Your task to perform on an android device: toggle improve location accuracy Image 0: 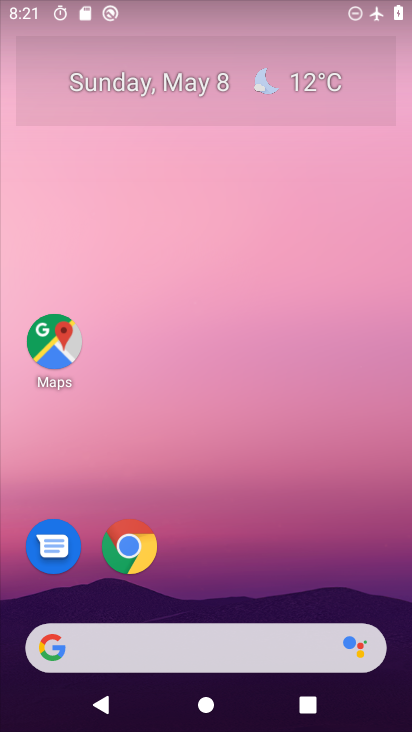
Step 0: drag from (261, 573) to (202, 30)
Your task to perform on an android device: toggle improve location accuracy Image 1: 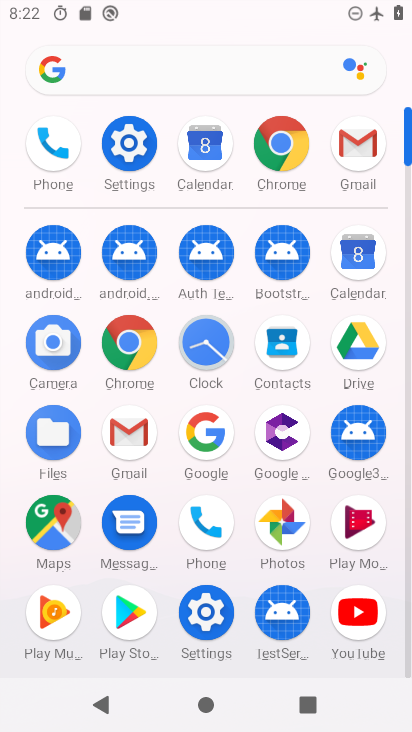
Step 1: press home button
Your task to perform on an android device: toggle improve location accuracy Image 2: 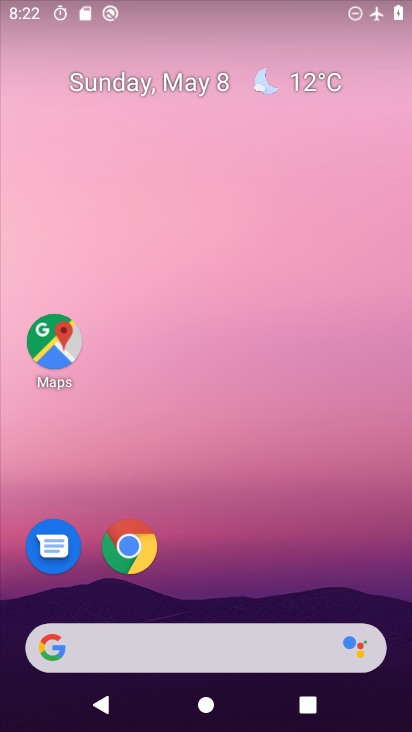
Step 2: drag from (284, 531) to (293, 49)
Your task to perform on an android device: toggle improve location accuracy Image 3: 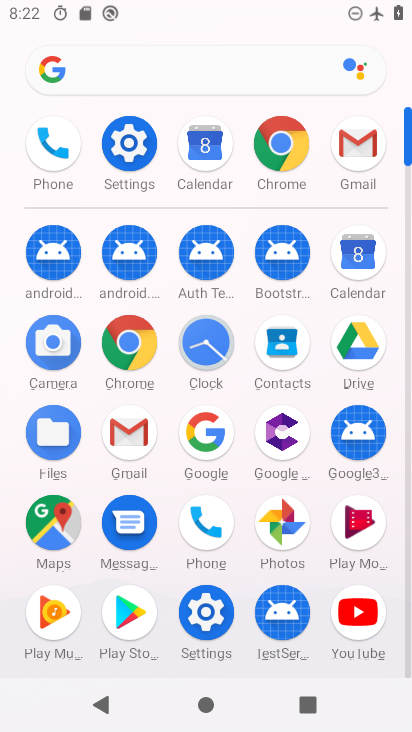
Step 3: click (143, 129)
Your task to perform on an android device: toggle improve location accuracy Image 4: 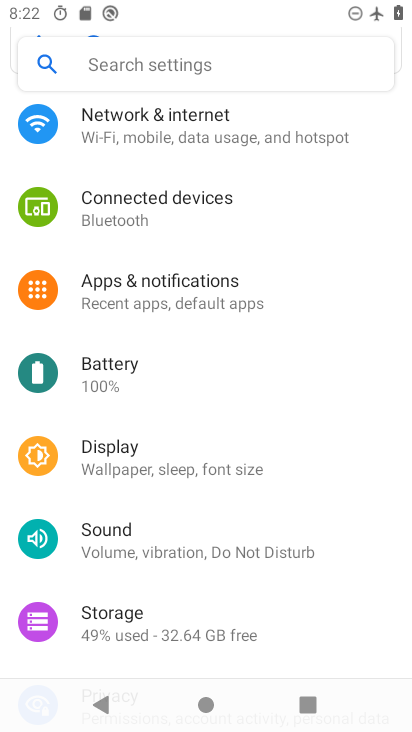
Step 4: drag from (161, 530) to (183, 183)
Your task to perform on an android device: toggle improve location accuracy Image 5: 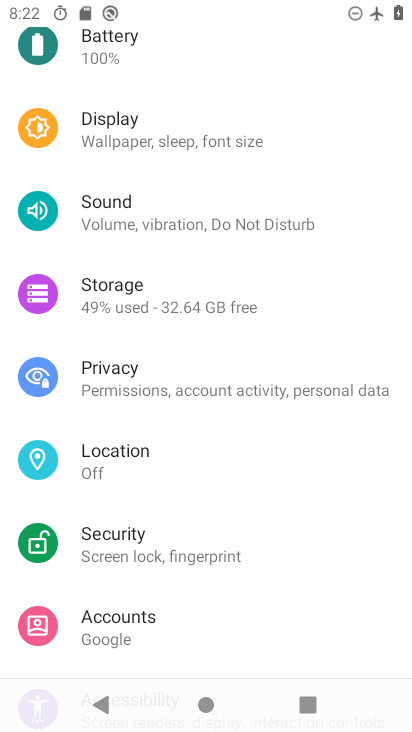
Step 5: click (156, 451)
Your task to perform on an android device: toggle improve location accuracy Image 6: 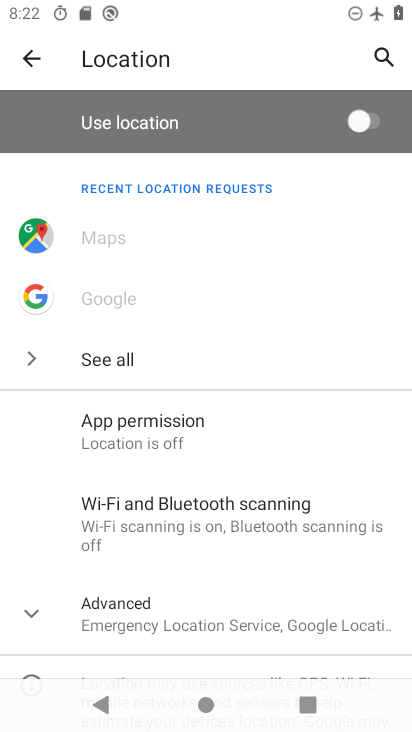
Step 6: click (33, 604)
Your task to perform on an android device: toggle improve location accuracy Image 7: 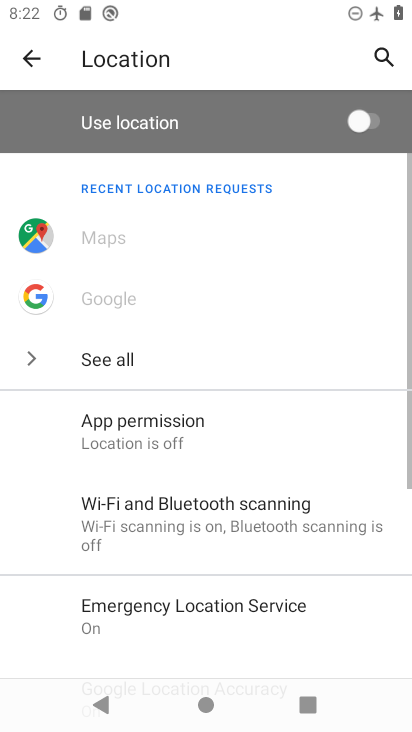
Step 7: drag from (174, 568) to (299, 212)
Your task to perform on an android device: toggle improve location accuracy Image 8: 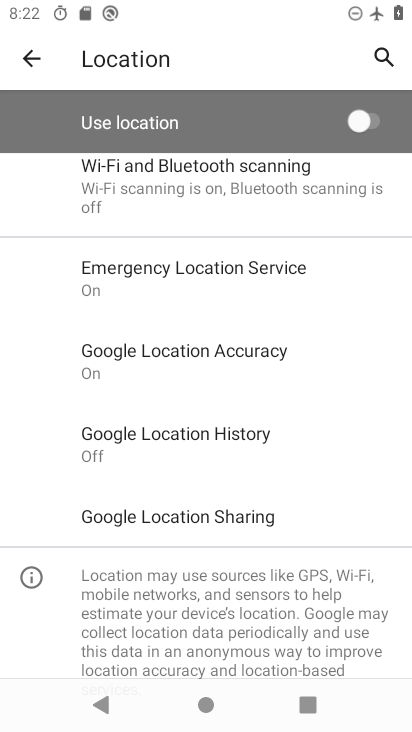
Step 8: click (258, 354)
Your task to perform on an android device: toggle improve location accuracy Image 9: 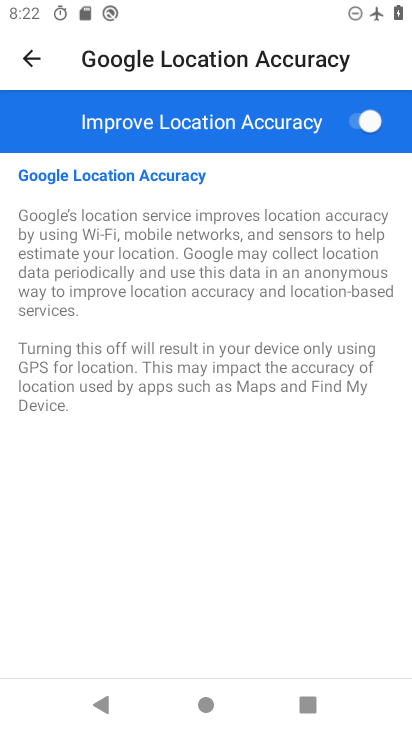
Step 9: click (366, 127)
Your task to perform on an android device: toggle improve location accuracy Image 10: 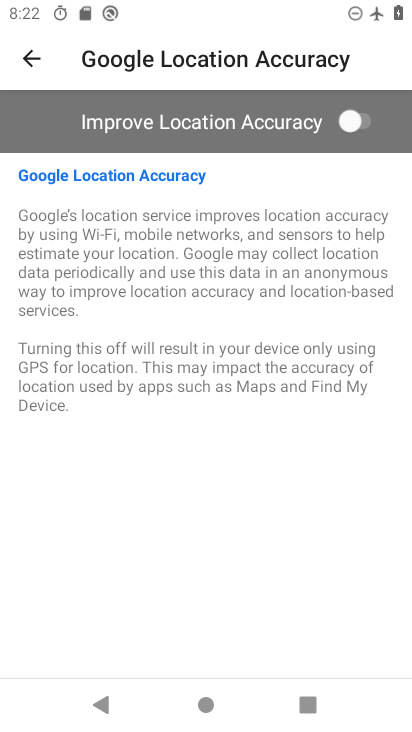
Step 10: task complete